Your task to perform on an android device: Go to network settings Image 0: 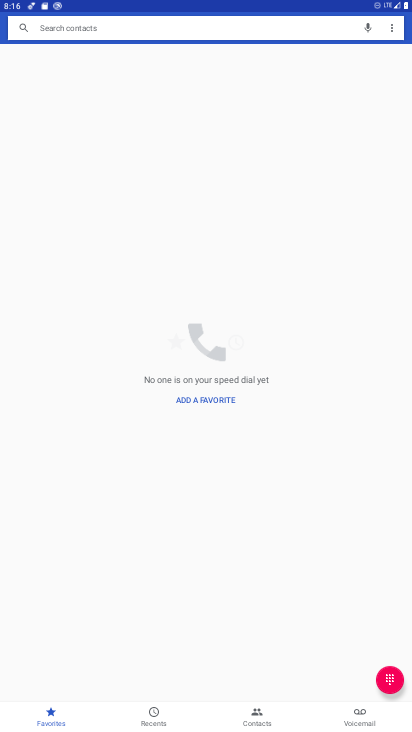
Step 0: press home button
Your task to perform on an android device: Go to network settings Image 1: 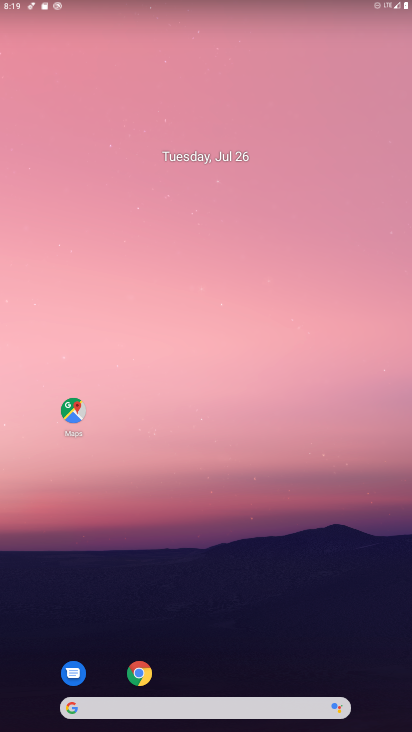
Step 1: drag from (279, 615) to (305, 19)
Your task to perform on an android device: Go to network settings Image 2: 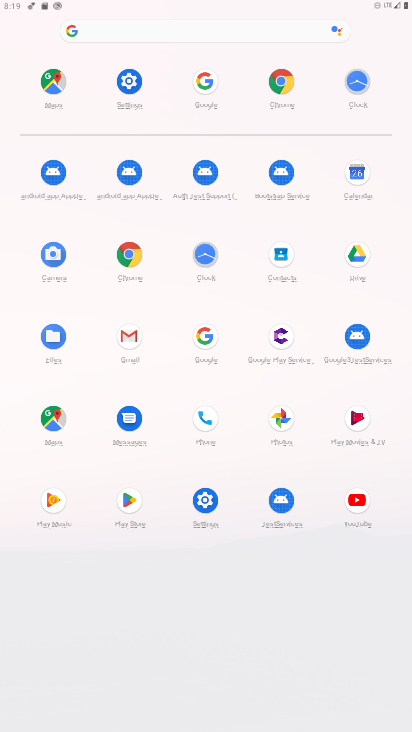
Step 2: click (188, 492)
Your task to perform on an android device: Go to network settings Image 3: 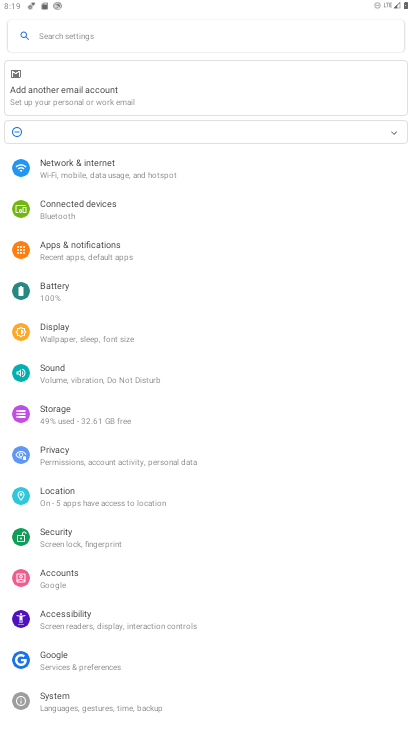
Step 3: click (97, 176)
Your task to perform on an android device: Go to network settings Image 4: 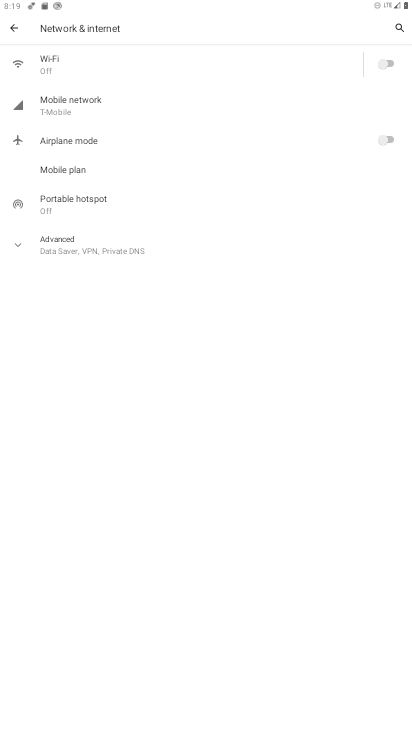
Step 4: task complete